Your task to perform on an android device: Search for a new bike on Walmart. Image 0: 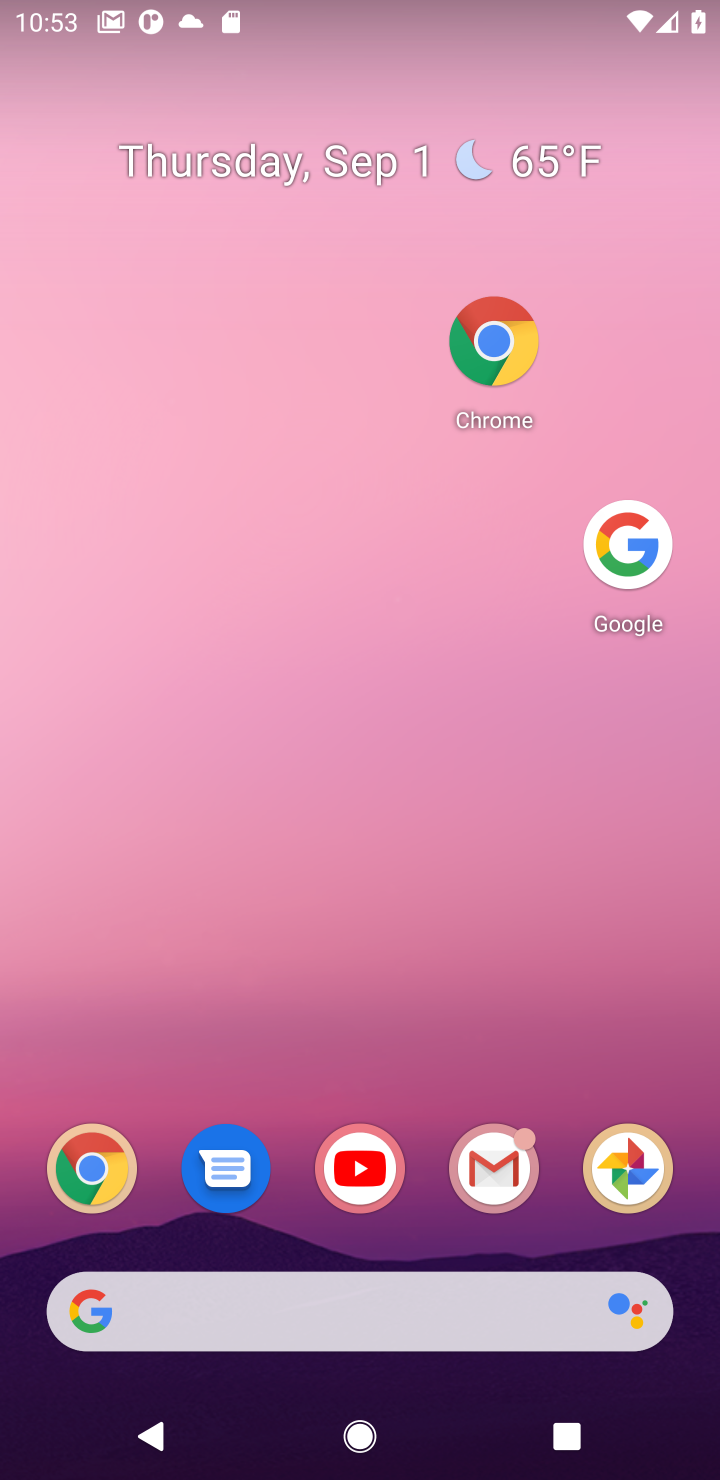
Step 0: drag from (322, 565) to (315, 389)
Your task to perform on an android device: Search for a new bike on Walmart. Image 1: 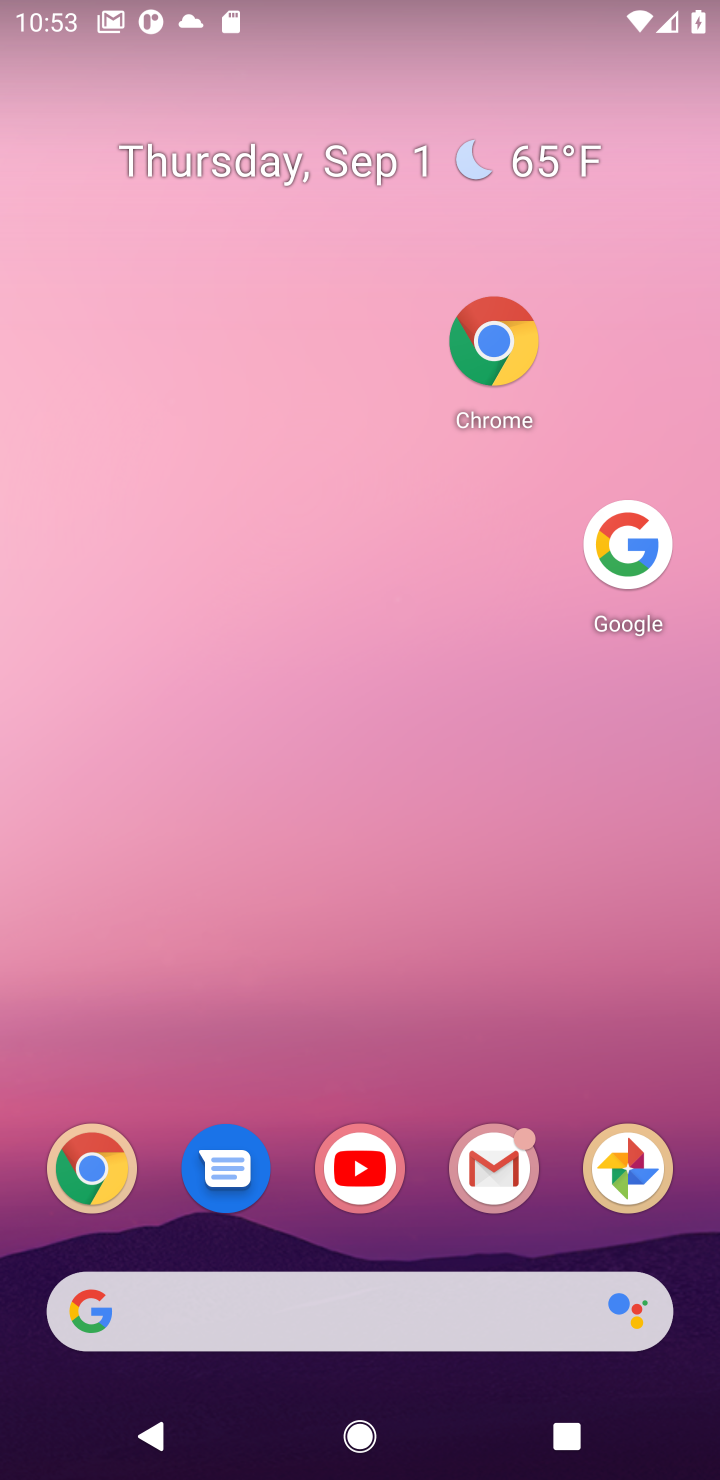
Step 1: click (605, 503)
Your task to perform on an android device: Search for a new bike on Walmart. Image 2: 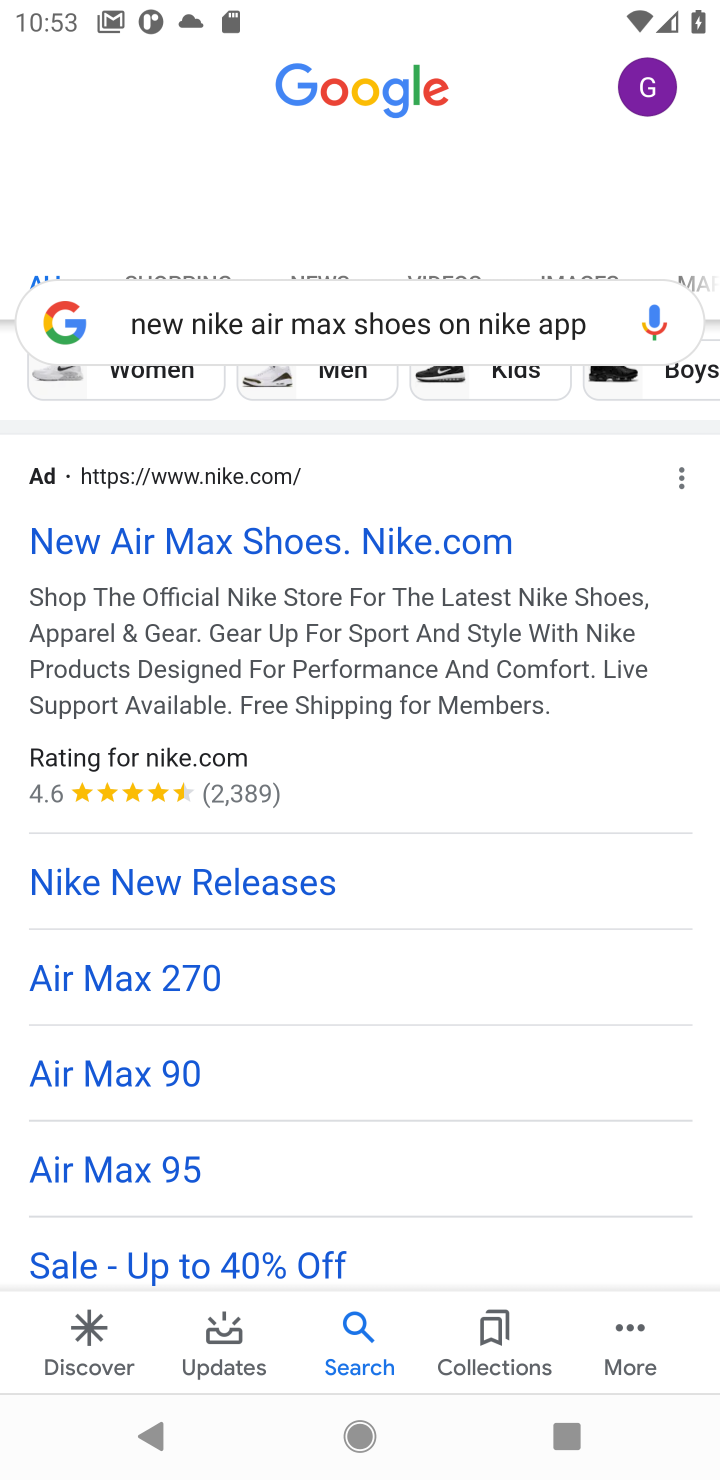
Step 2: click (467, 298)
Your task to perform on an android device: Search for a new bike on Walmart. Image 3: 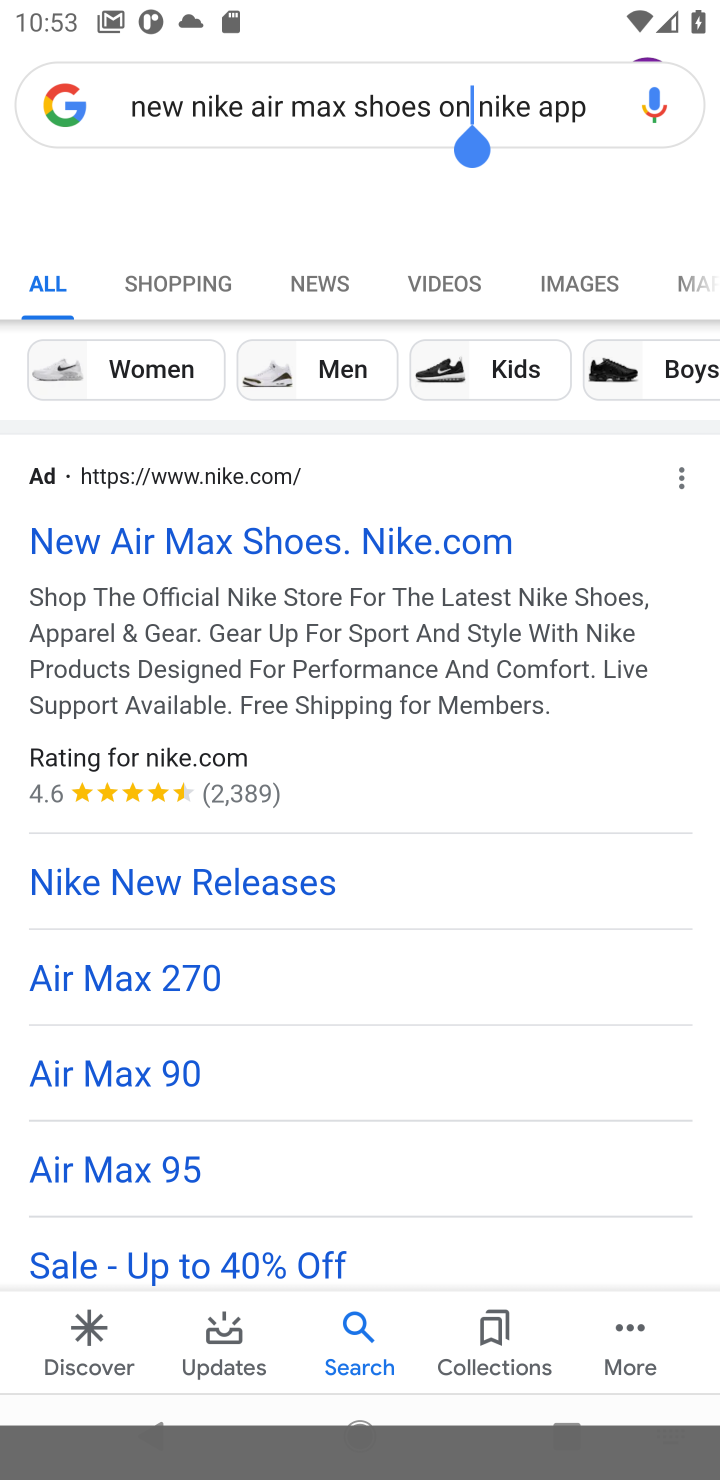
Step 3: click (613, 101)
Your task to perform on an android device: Search for a new bike on Walmart. Image 4: 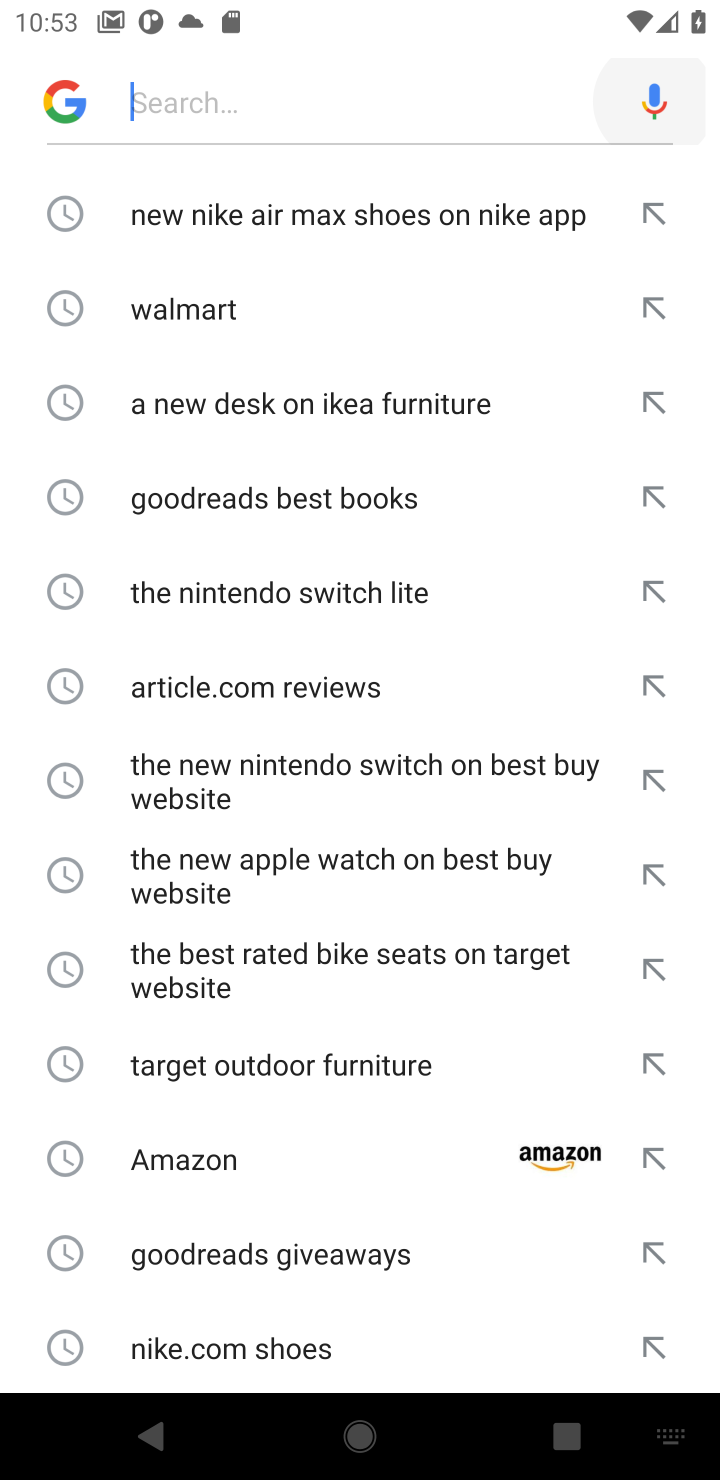
Step 4: click (623, 101)
Your task to perform on an android device: Search for a new bike on Walmart. Image 5: 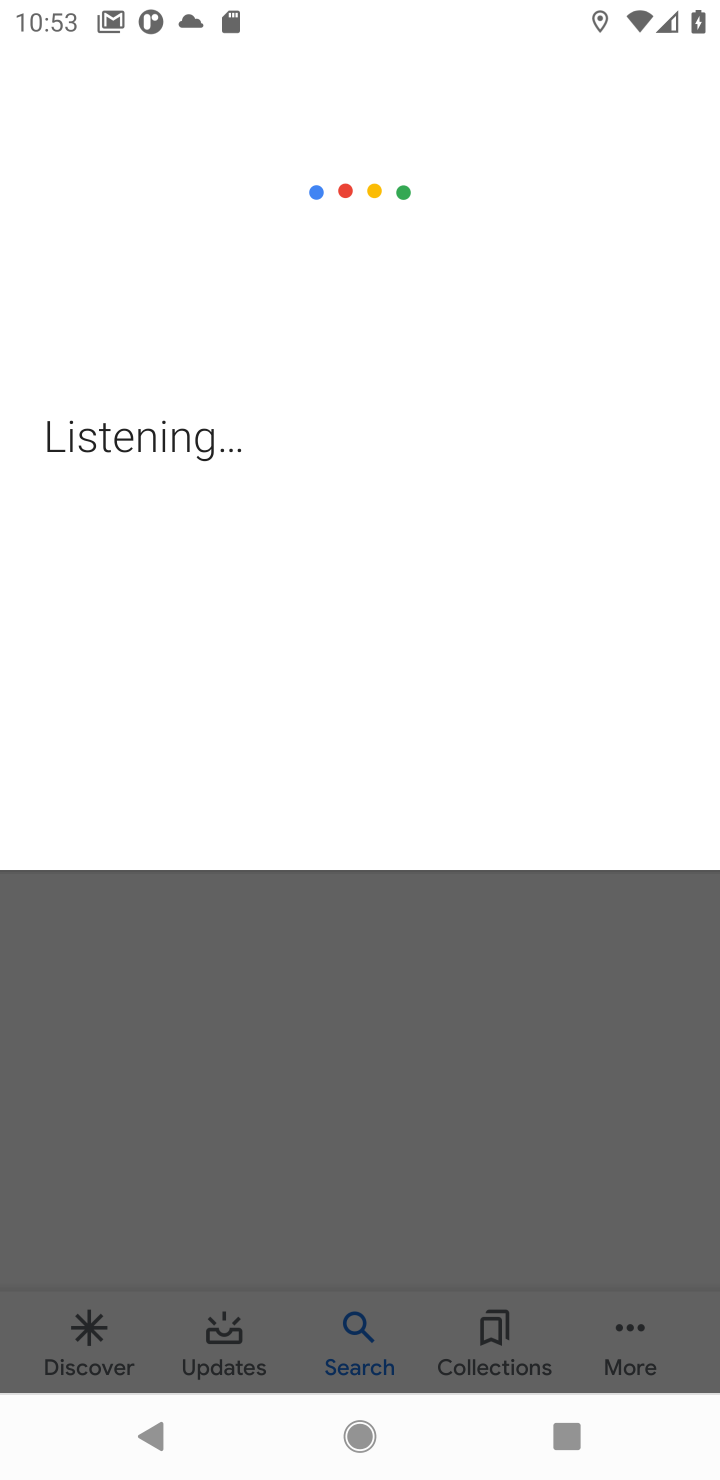
Step 5: press back button
Your task to perform on an android device: Search for a new bike on Walmart. Image 6: 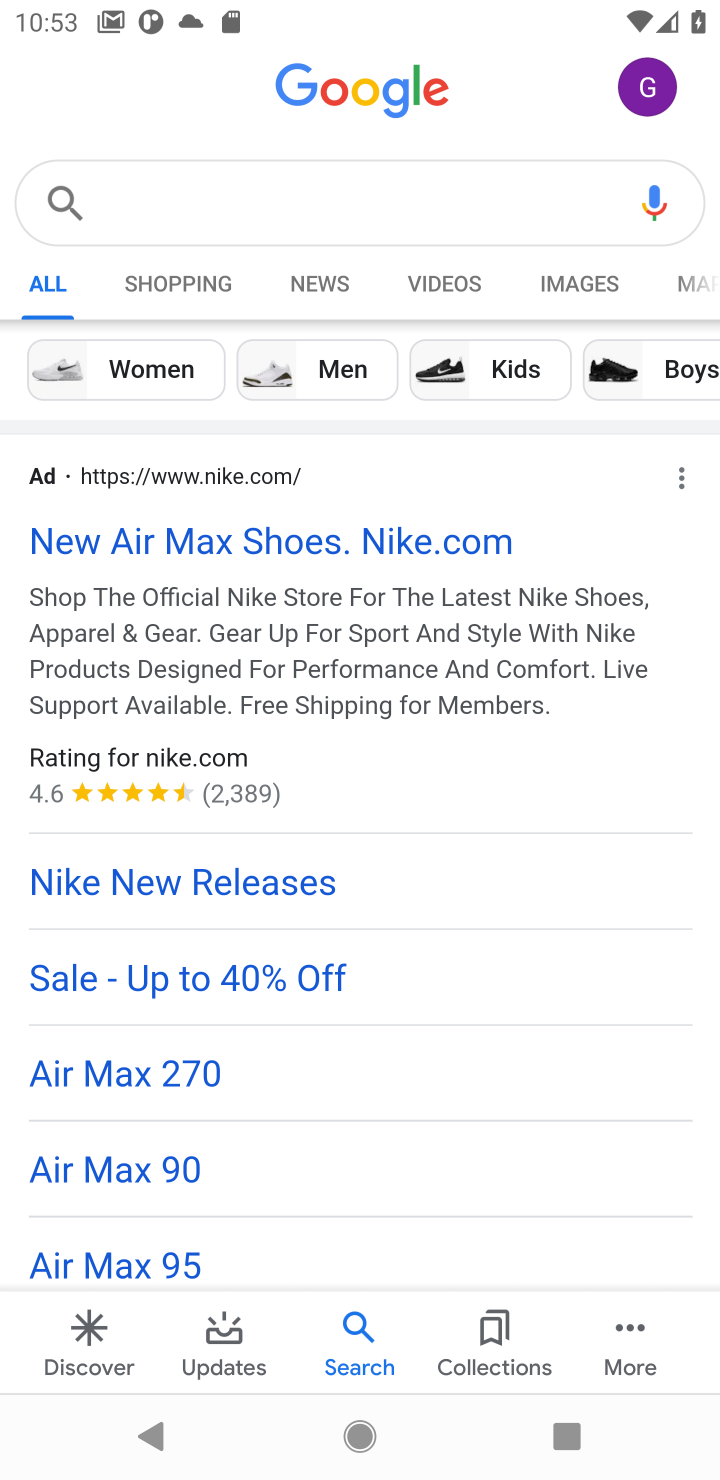
Step 6: click (334, 192)
Your task to perform on an android device: Search for a new bike on Walmart. Image 7: 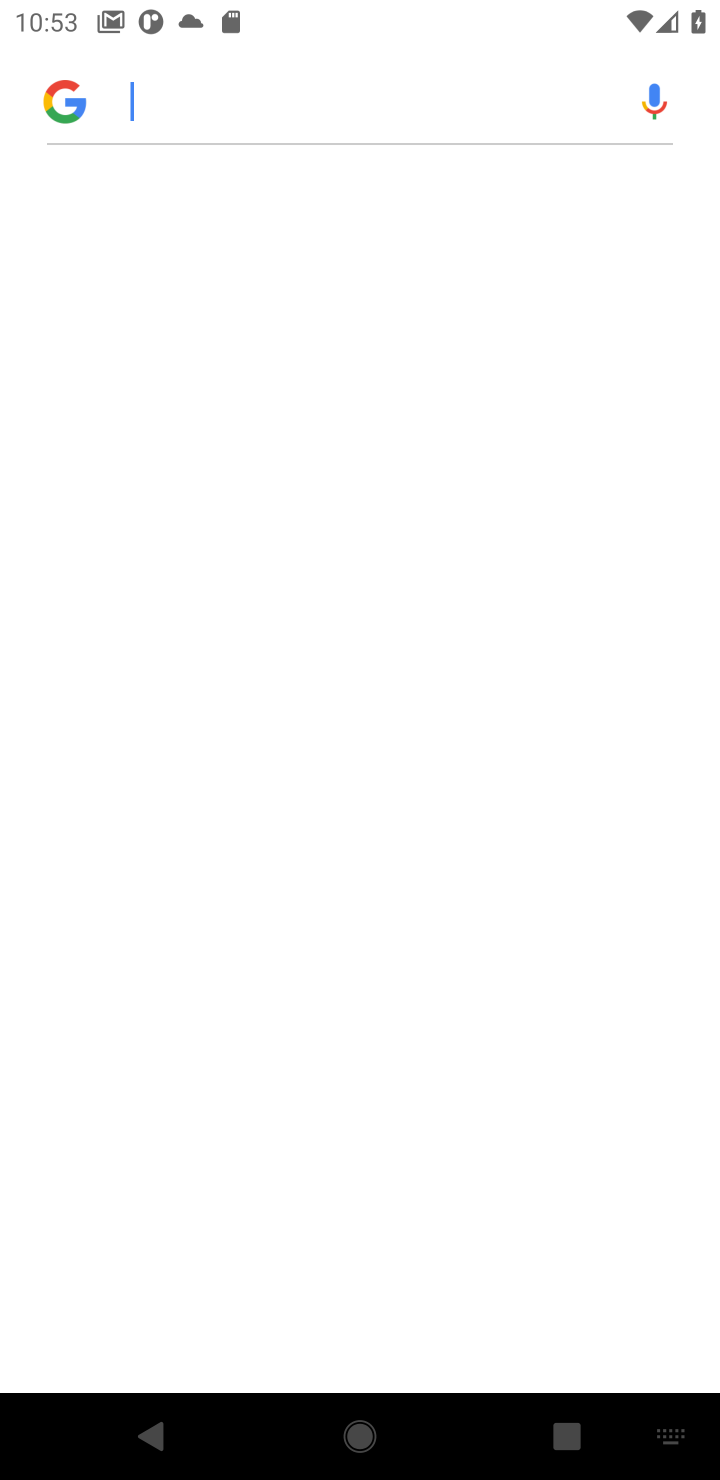
Step 7: type " a new bike on Walmart "
Your task to perform on an android device: Search for a new bike on Walmart. Image 8: 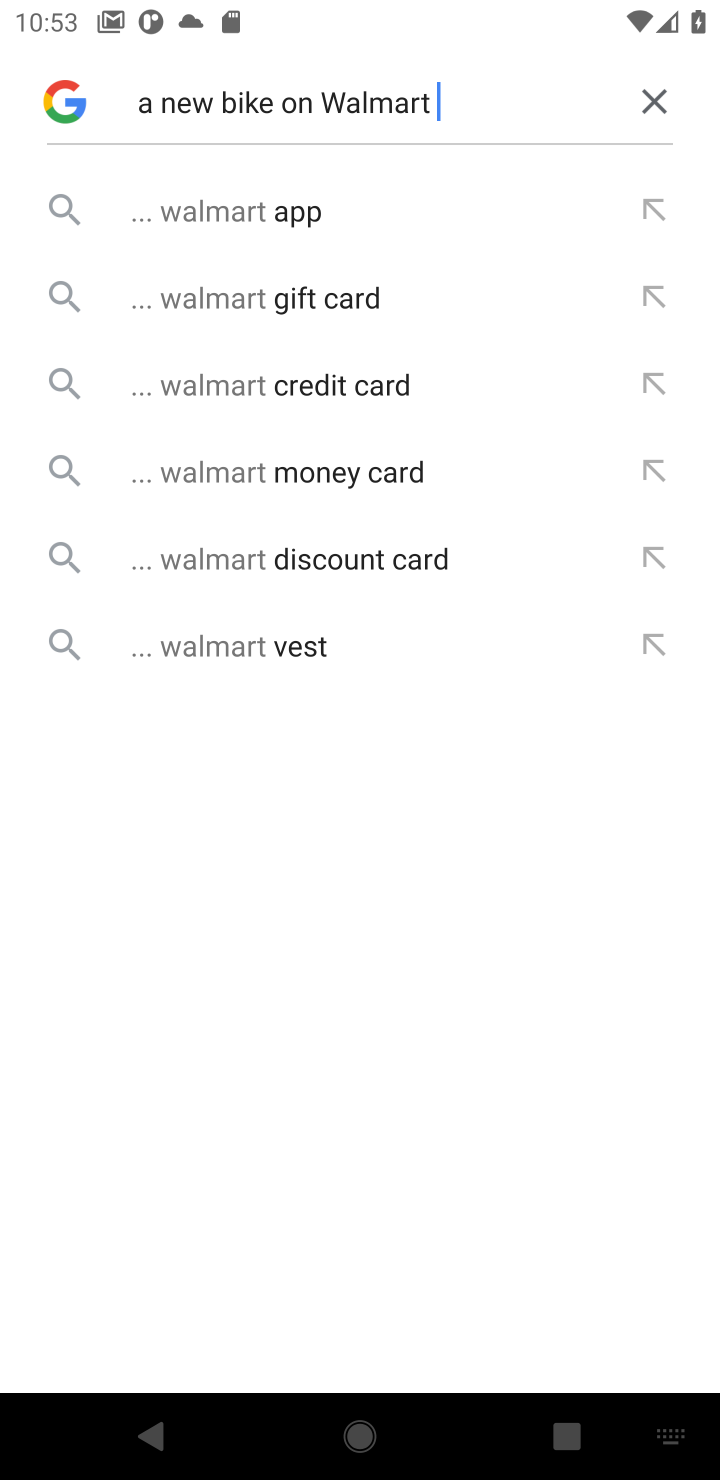
Step 8: click (256, 220)
Your task to perform on an android device: Search for a new bike on Walmart. Image 9: 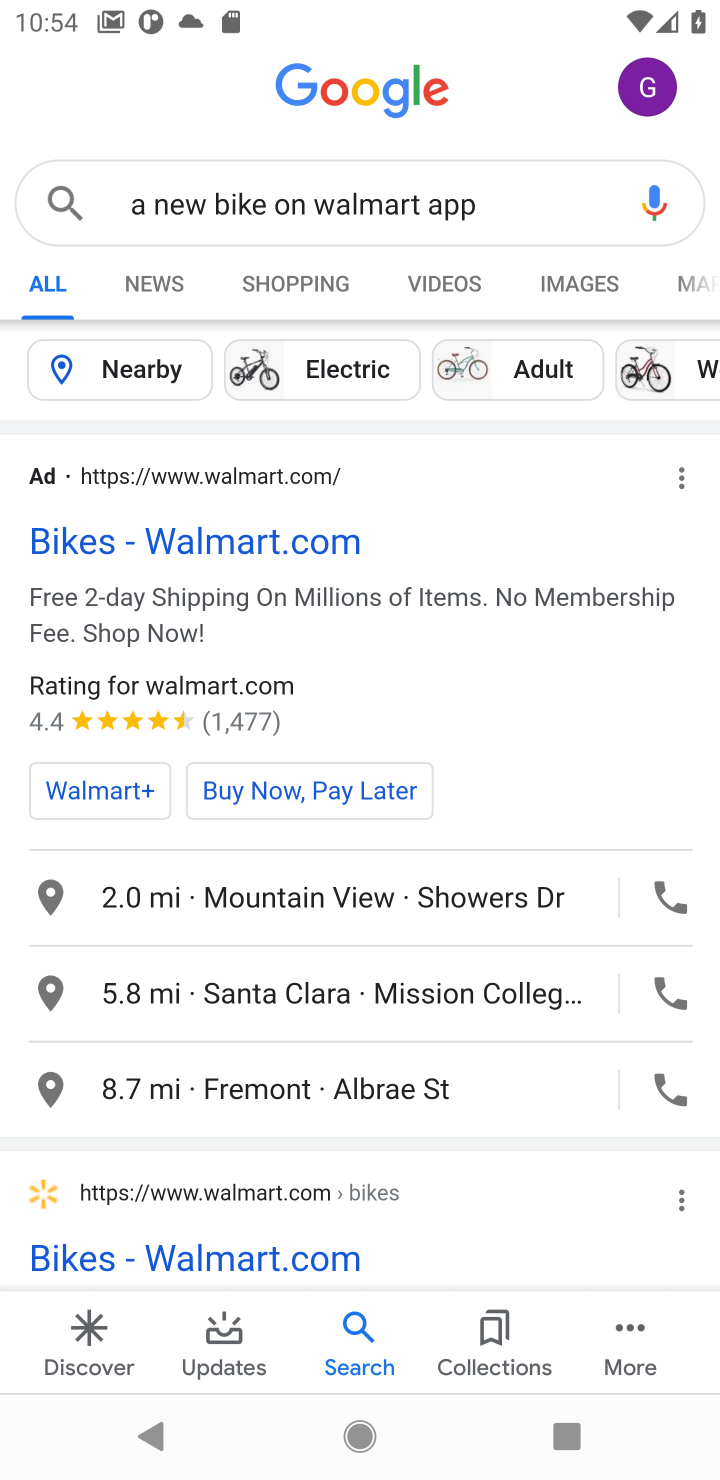
Step 9: click (298, 555)
Your task to perform on an android device: Search for a new bike on Walmart. Image 10: 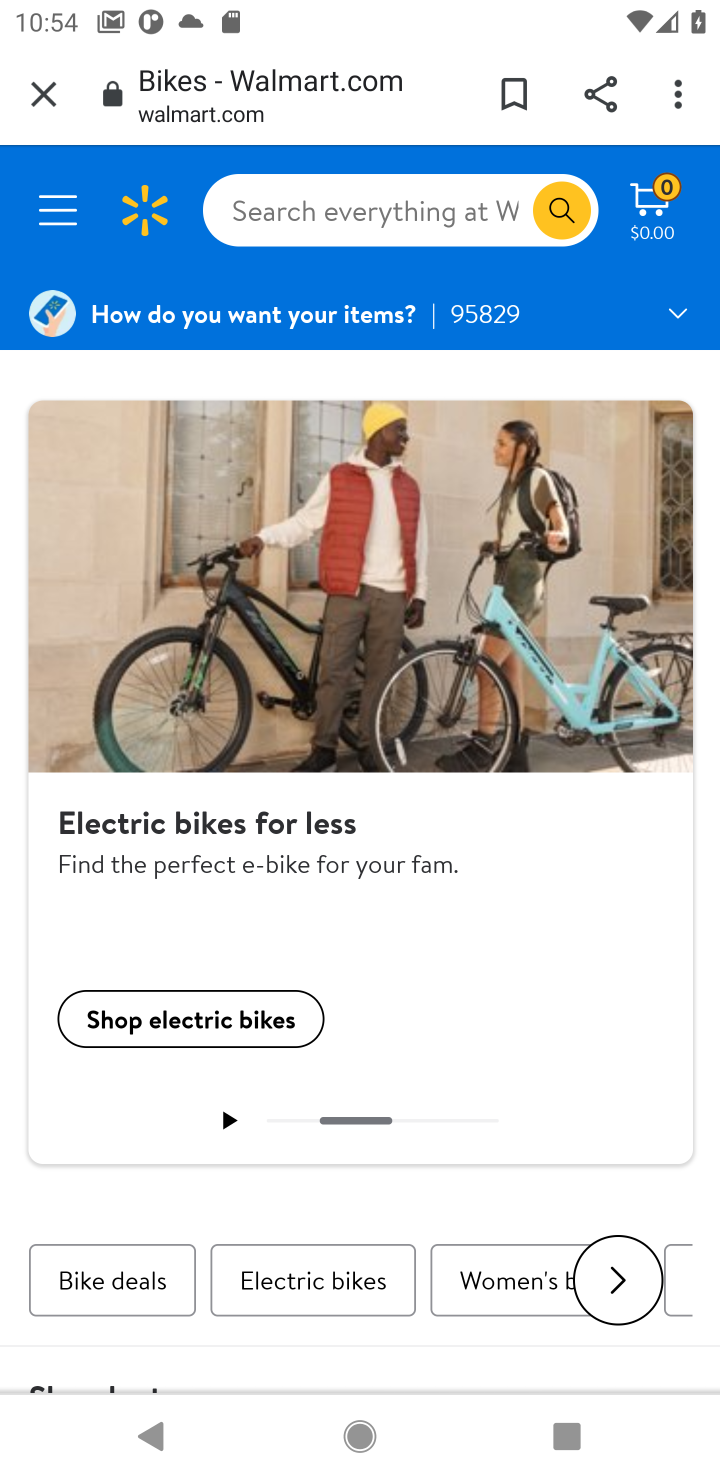
Step 10: task complete